Your task to perform on an android device: What is the news today? Image 0: 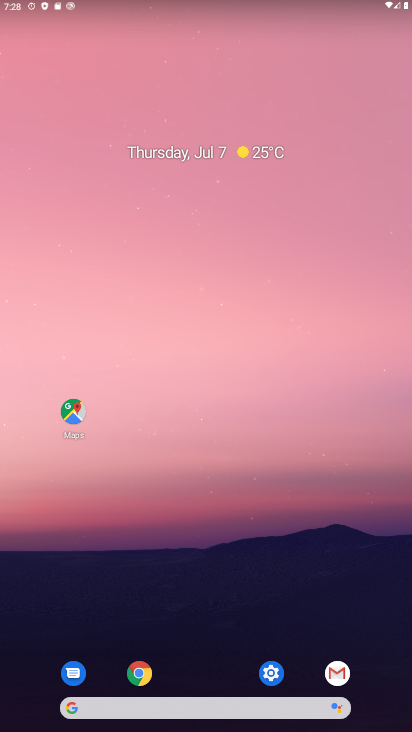
Step 0: click (175, 714)
Your task to perform on an android device: What is the news today? Image 1: 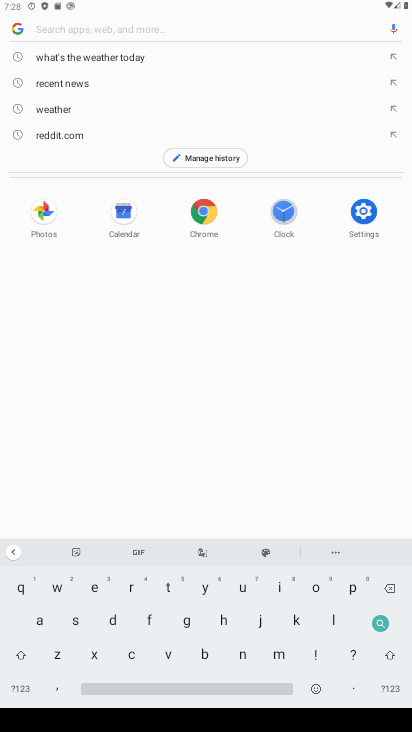
Step 1: click (238, 652)
Your task to perform on an android device: What is the news today? Image 2: 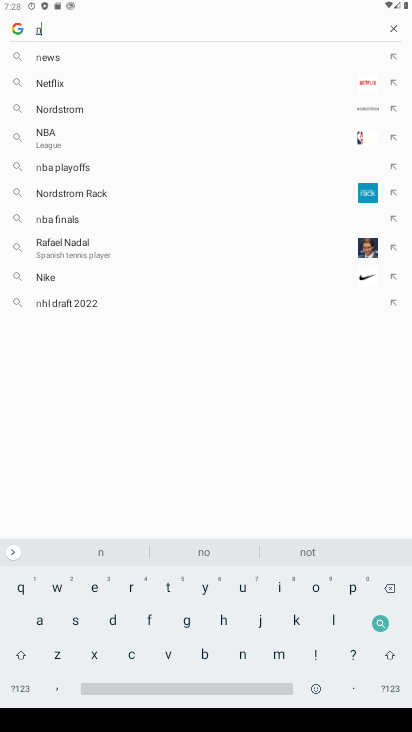
Step 2: click (90, 588)
Your task to perform on an android device: What is the news today? Image 3: 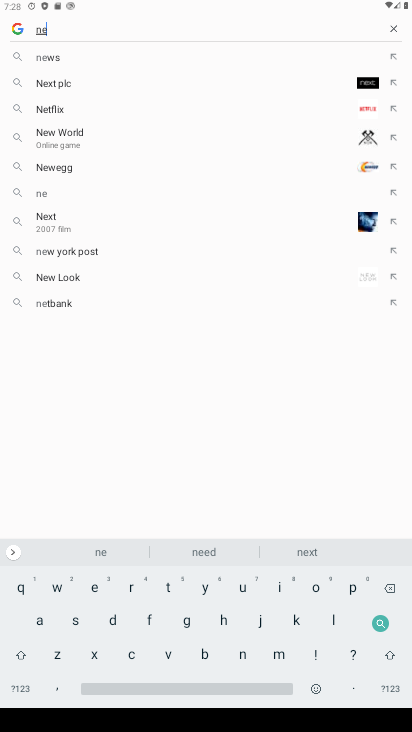
Step 3: click (52, 588)
Your task to perform on an android device: What is the news today? Image 4: 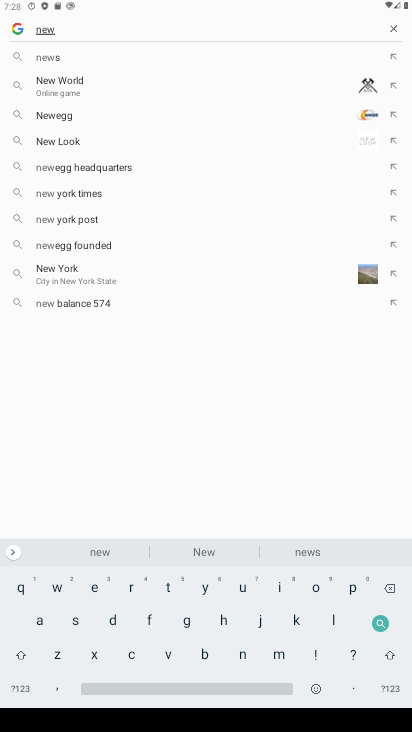
Step 4: click (72, 623)
Your task to perform on an android device: What is the news today? Image 5: 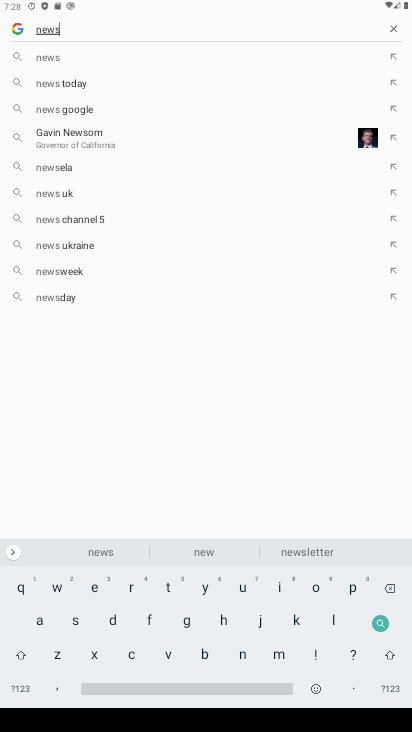
Step 5: click (74, 79)
Your task to perform on an android device: What is the news today? Image 6: 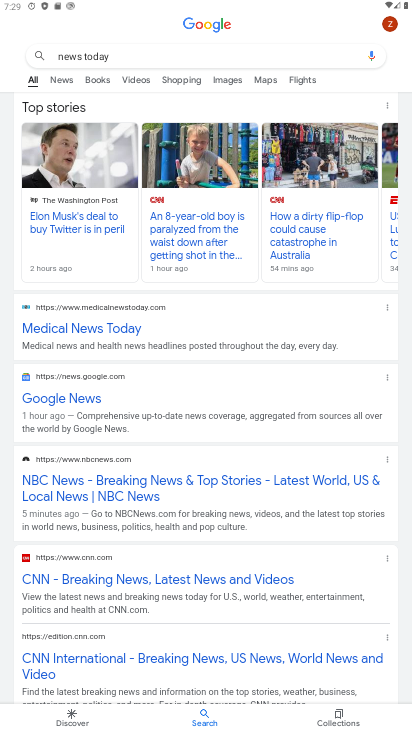
Step 6: task complete